Your task to perform on an android device: open chrome privacy settings Image 0: 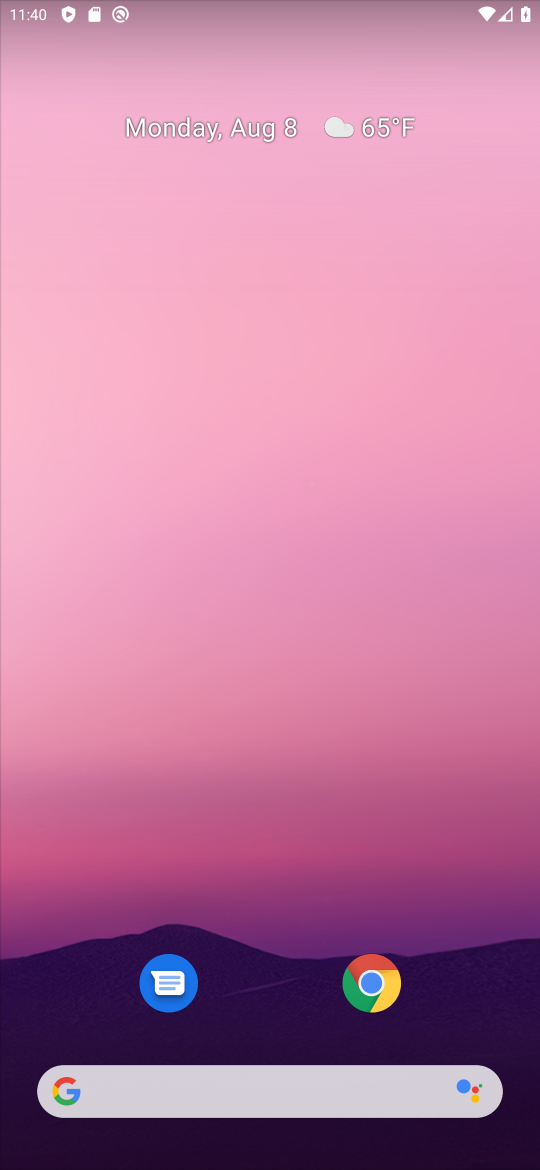
Step 0: click (375, 1002)
Your task to perform on an android device: open chrome privacy settings Image 1: 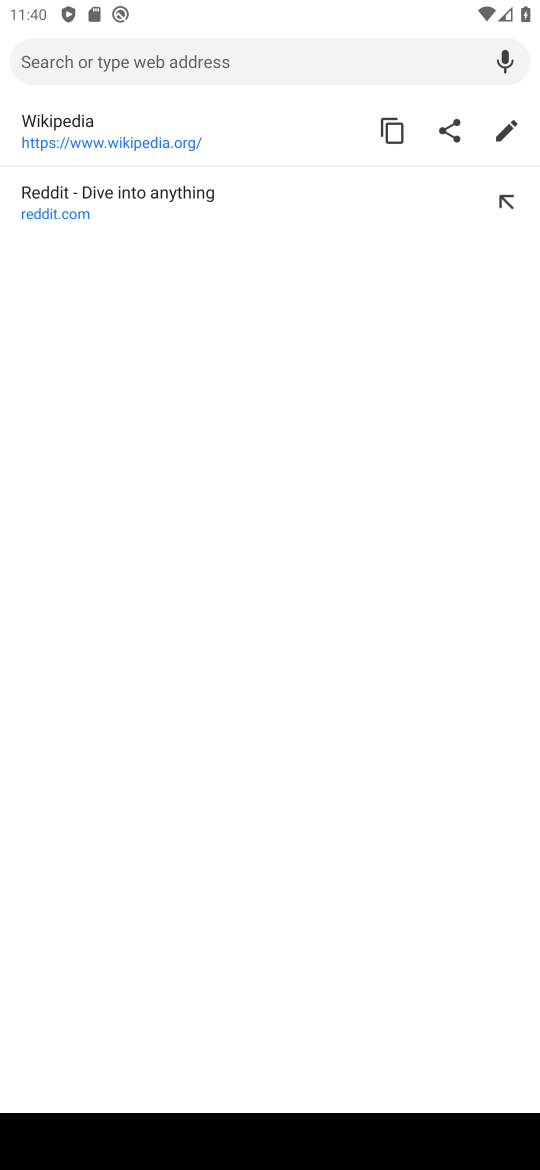
Step 1: press back button
Your task to perform on an android device: open chrome privacy settings Image 2: 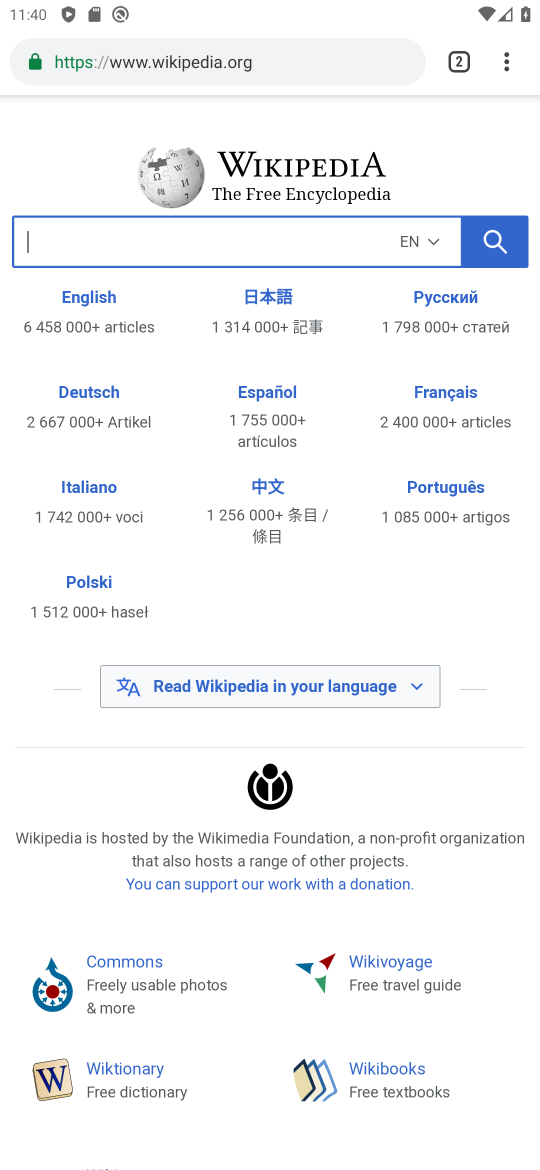
Step 2: click (491, 84)
Your task to perform on an android device: open chrome privacy settings Image 3: 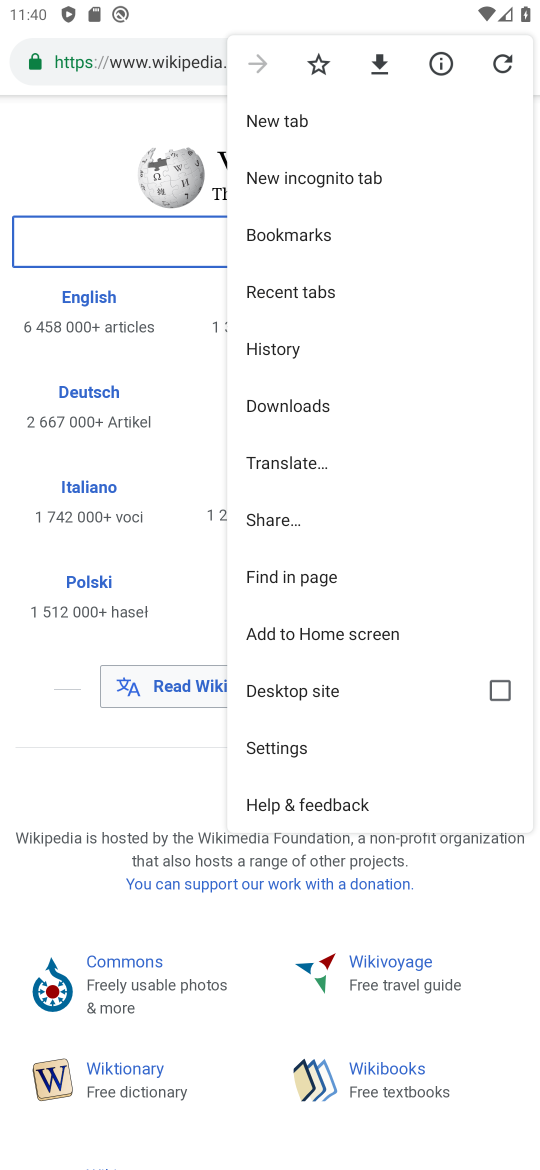
Step 3: click (317, 725)
Your task to perform on an android device: open chrome privacy settings Image 4: 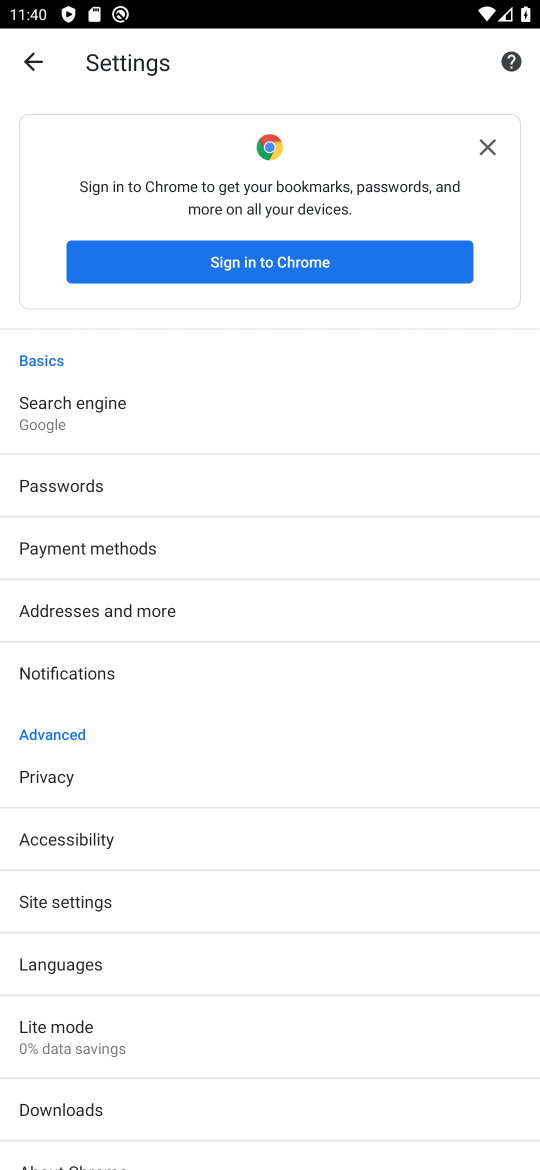
Step 4: click (172, 769)
Your task to perform on an android device: open chrome privacy settings Image 5: 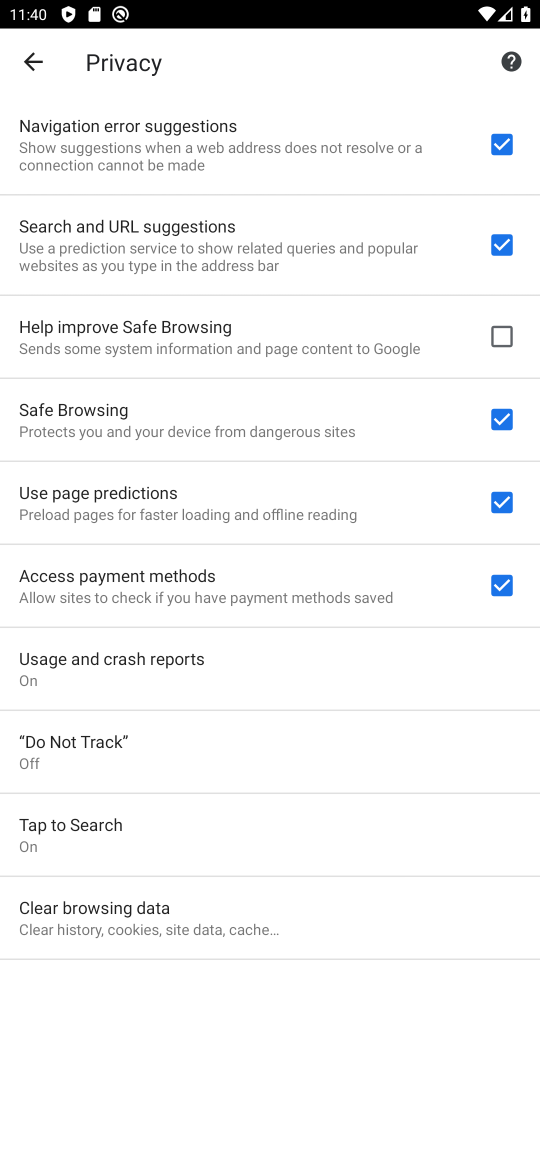
Step 5: task complete